Your task to perform on an android device: Open the web browser Image 0: 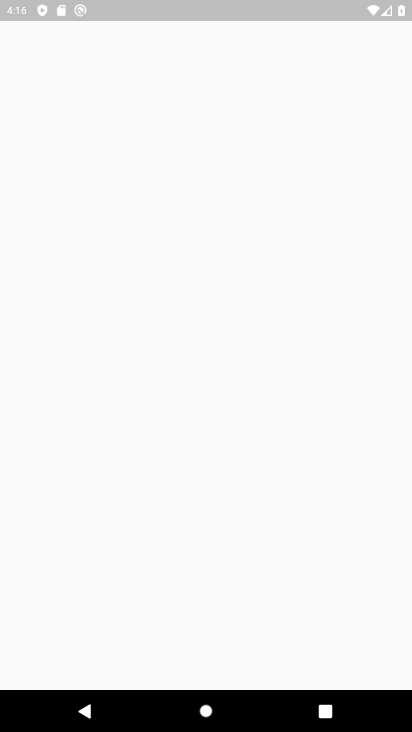
Step 0: press back button
Your task to perform on an android device: Open the web browser Image 1: 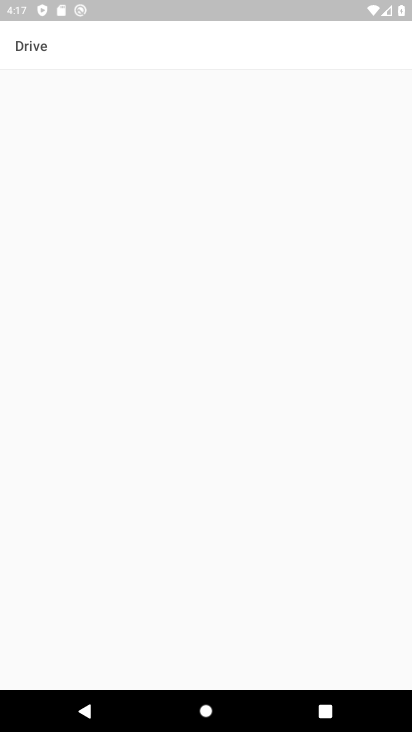
Step 1: press home button
Your task to perform on an android device: Open the web browser Image 2: 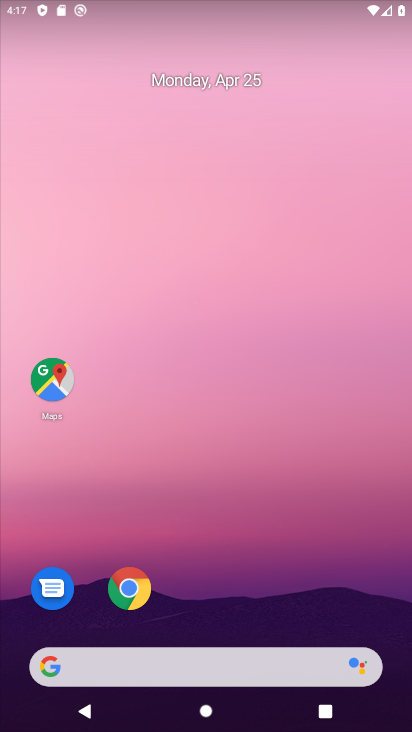
Step 2: click (120, 589)
Your task to perform on an android device: Open the web browser Image 3: 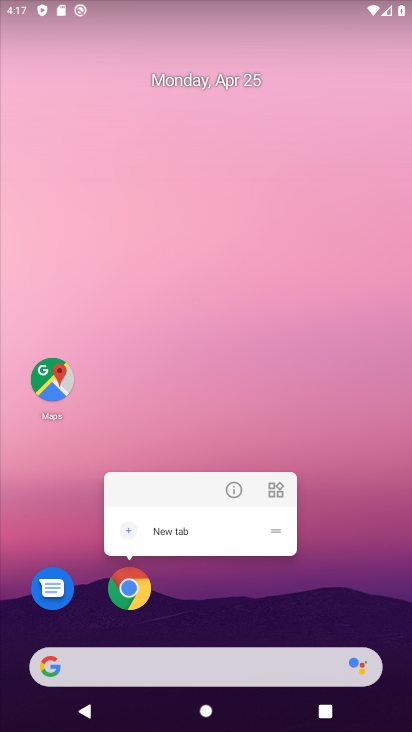
Step 3: click (131, 597)
Your task to perform on an android device: Open the web browser Image 4: 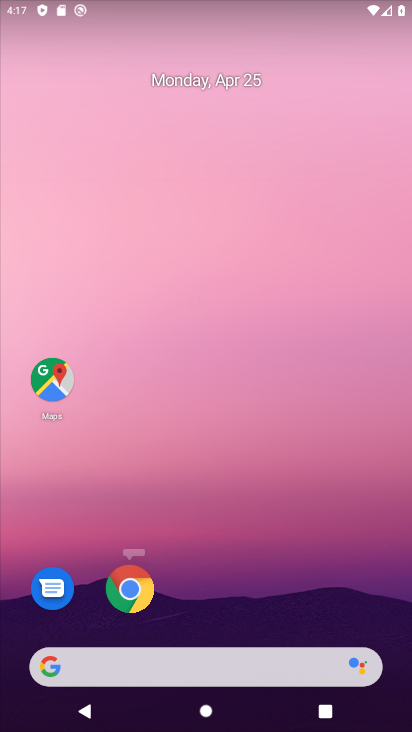
Step 4: click (136, 599)
Your task to perform on an android device: Open the web browser Image 5: 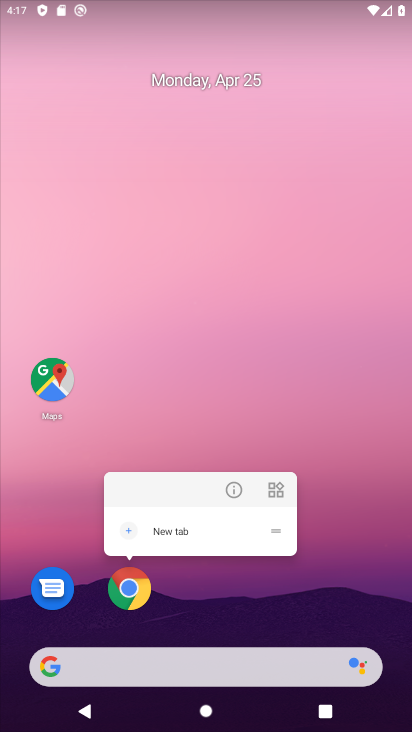
Step 5: click (136, 597)
Your task to perform on an android device: Open the web browser Image 6: 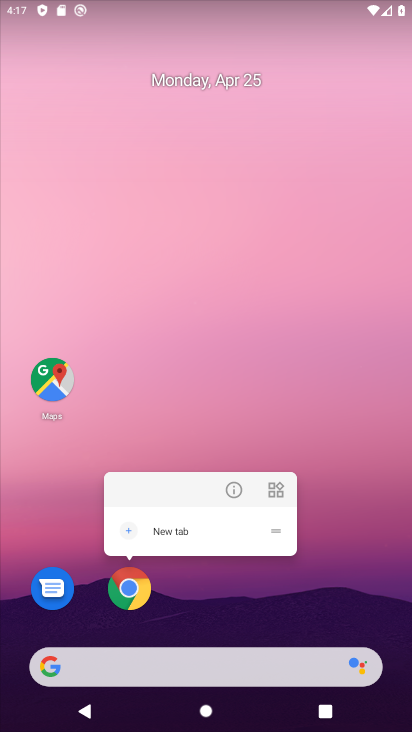
Step 6: click (125, 593)
Your task to perform on an android device: Open the web browser Image 7: 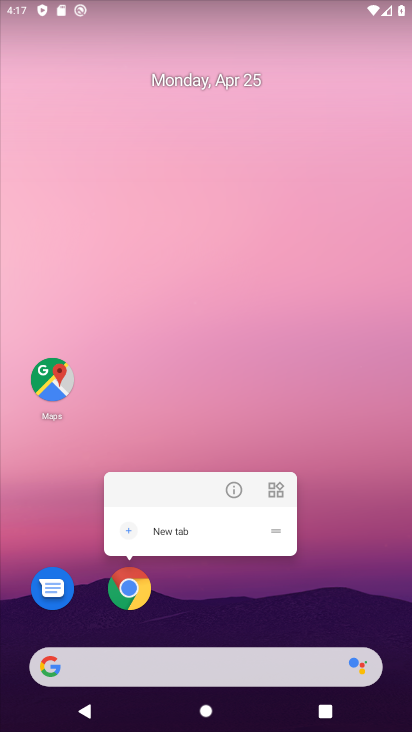
Step 7: click (128, 592)
Your task to perform on an android device: Open the web browser Image 8: 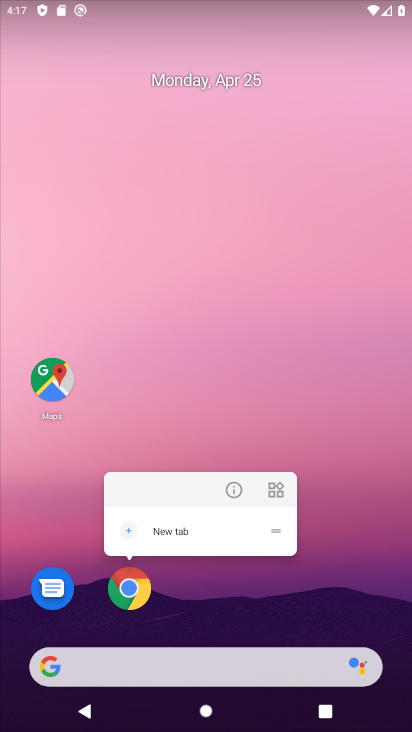
Step 8: click (134, 595)
Your task to perform on an android device: Open the web browser Image 9: 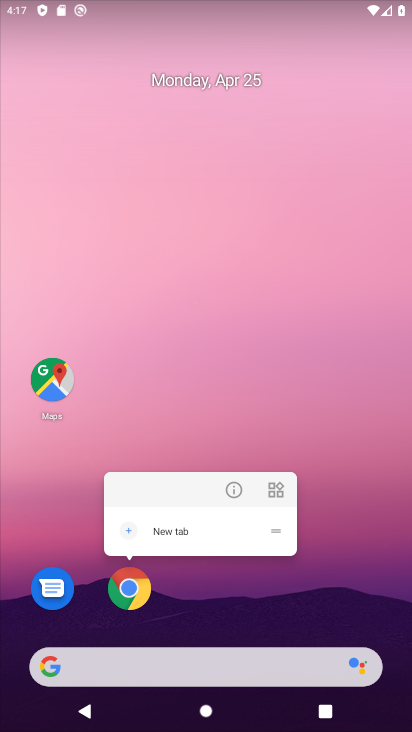
Step 9: click (133, 592)
Your task to perform on an android device: Open the web browser Image 10: 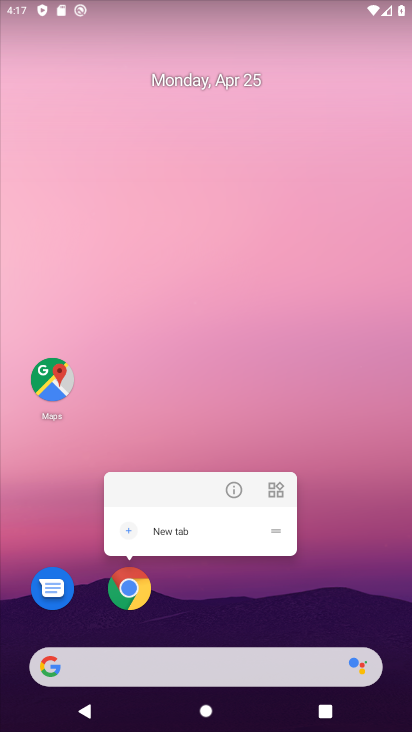
Step 10: click (128, 600)
Your task to perform on an android device: Open the web browser Image 11: 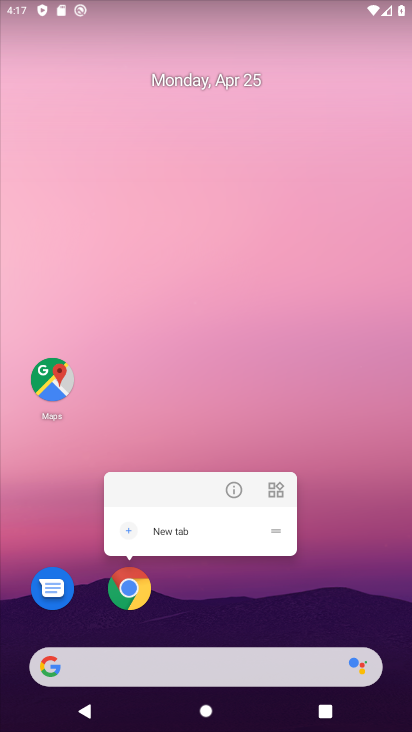
Step 11: click (141, 590)
Your task to perform on an android device: Open the web browser Image 12: 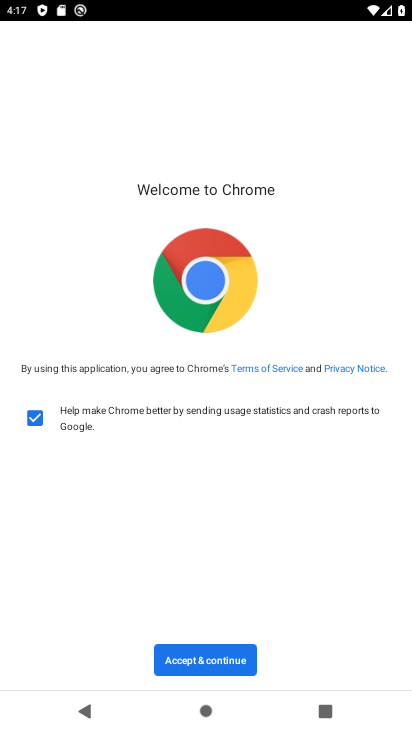
Step 12: click (219, 658)
Your task to perform on an android device: Open the web browser Image 13: 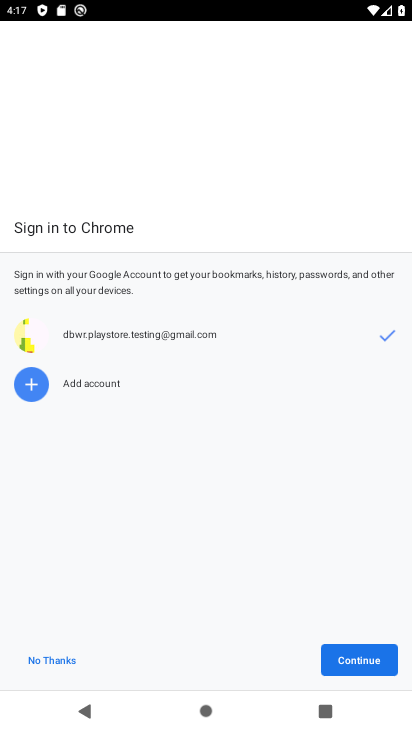
Step 13: click (369, 668)
Your task to perform on an android device: Open the web browser Image 14: 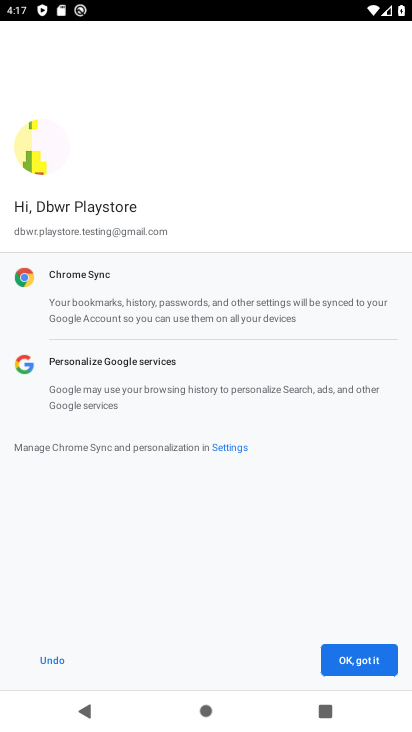
Step 14: click (370, 668)
Your task to perform on an android device: Open the web browser Image 15: 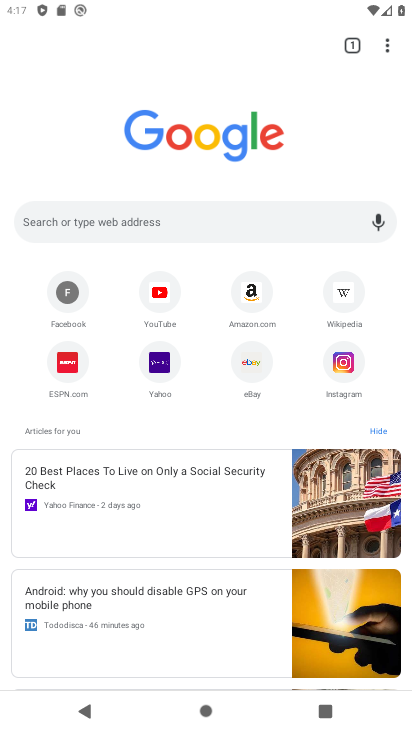
Step 15: task complete